Your task to perform on an android device: Open notification settings Image 0: 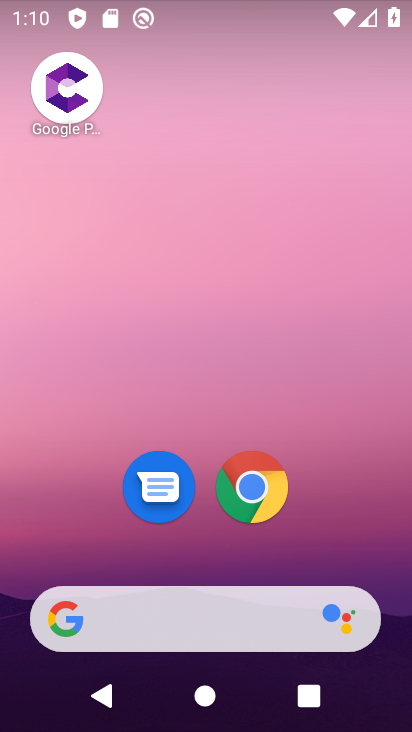
Step 0: drag from (264, 584) to (281, 121)
Your task to perform on an android device: Open notification settings Image 1: 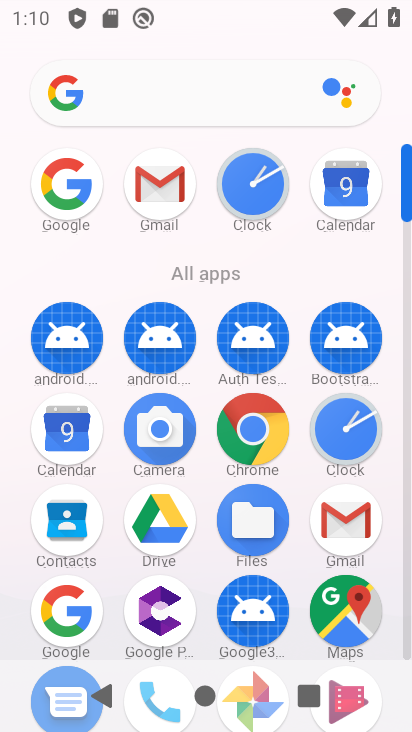
Step 1: drag from (133, 553) to (123, 218)
Your task to perform on an android device: Open notification settings Image 2: 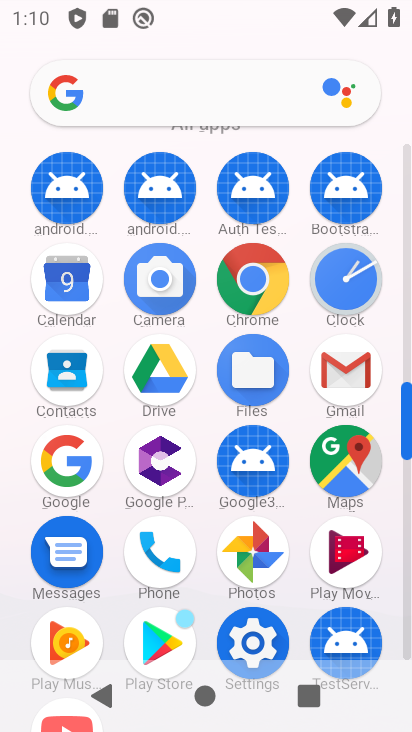
Step 2: click (242, 645)
Your task to perform on an android device: Open notification settings Image 3: 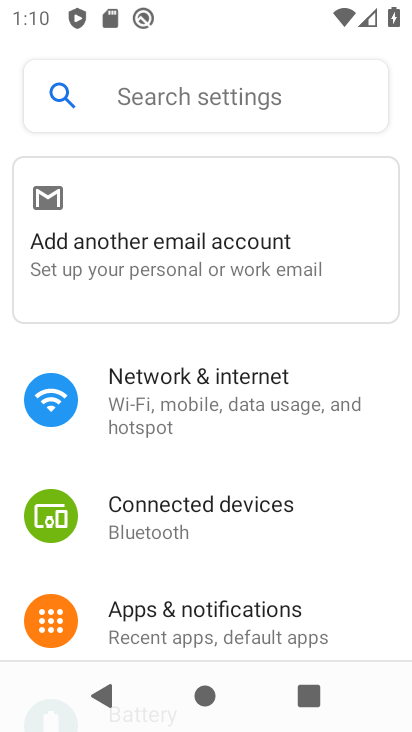
Step 3: drag from (156, 622) to (145, 301)
Your task to perform on an android device: Open notification settings Image 4: 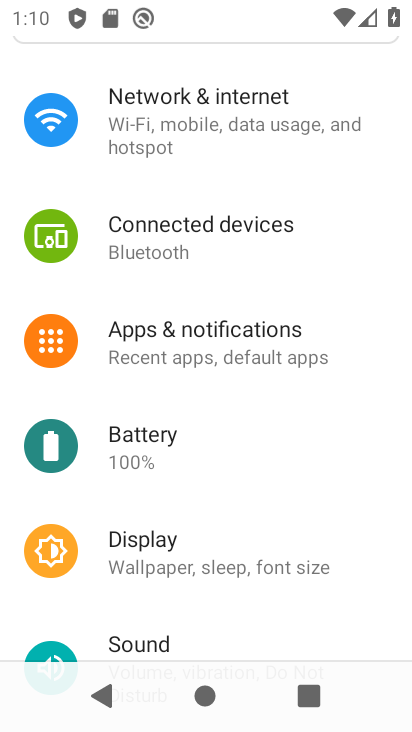
Step 4: click (158, 347)
Your task to perform on an android device: Open notification settings Image 5: 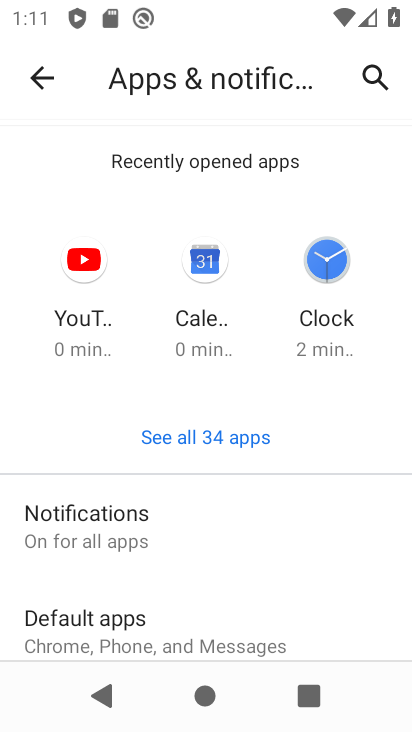
Step 5: drag from (175, 616) to (166, 285)
Your task to perform on an android device: Open notification settings Image 6: 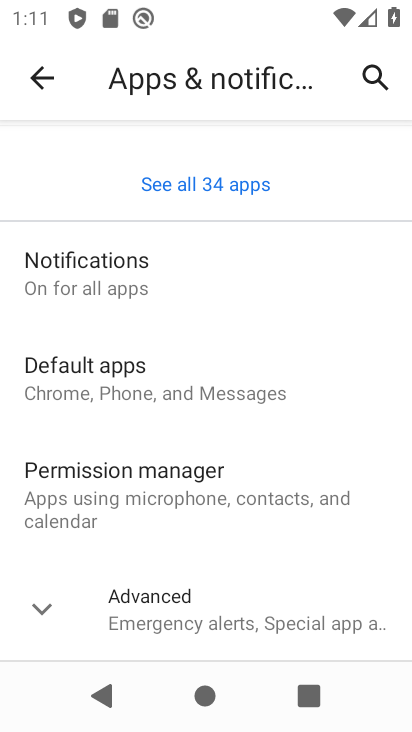
Step 6: click (53, 264)
Your task to perform on an android device: Open notification settings Image 7: 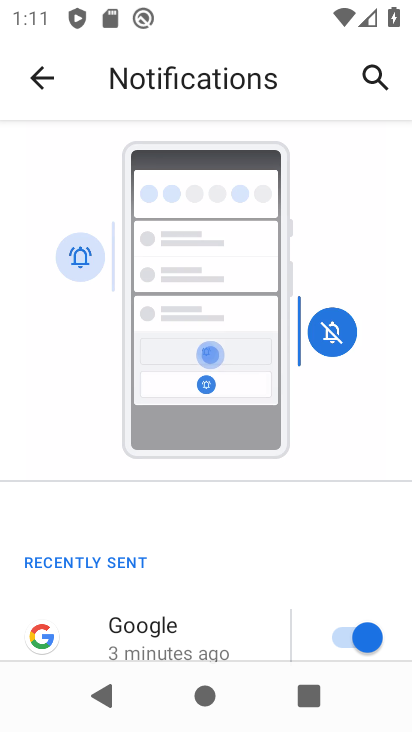
Step 7: task complete